Your task to perform on an android device: Open maps Image 0: 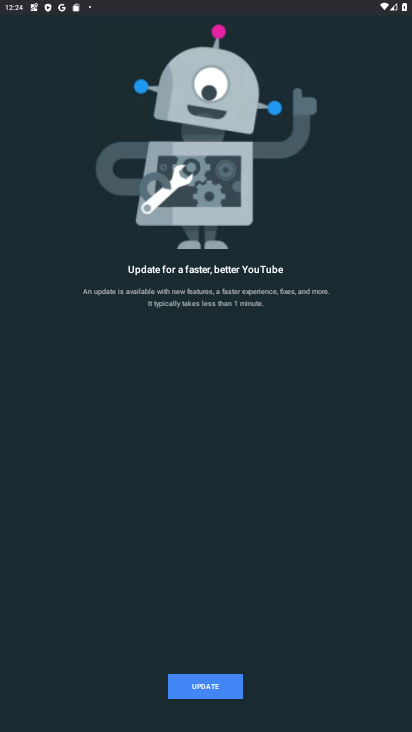
Step 0: press home button
Your task to perform on an android device: Open maps Image 1: 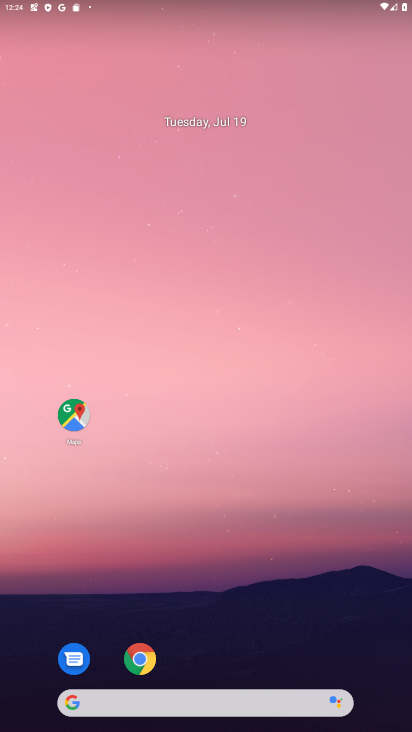
Step 1: click (74, 417)
Your task to perform on an android device: Open maps Image 2: 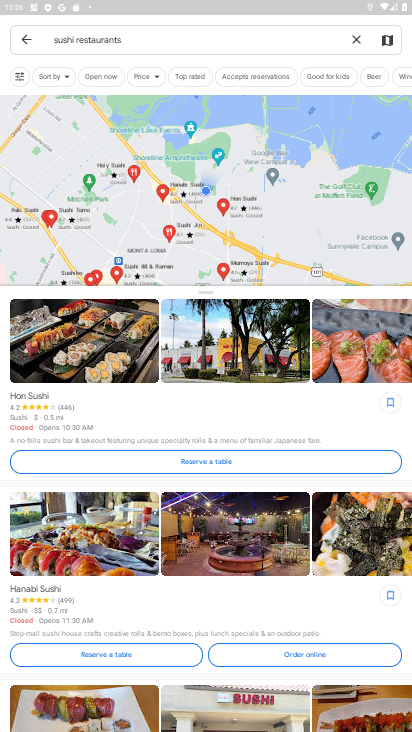
Step 2: task complete